Your task to perform on an android device: Search for pizza restaurants on Maps Image 0: 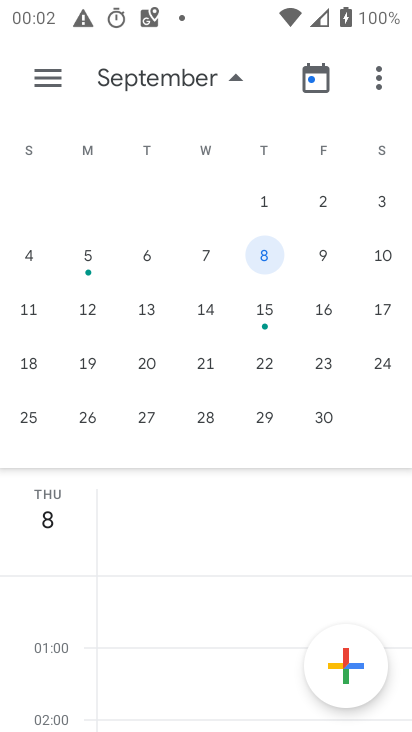
Step 0: drag from (180, 680) to (181, 109)
Your task to perform on an android device: Search for pizza restaurants on Maps Image 1: 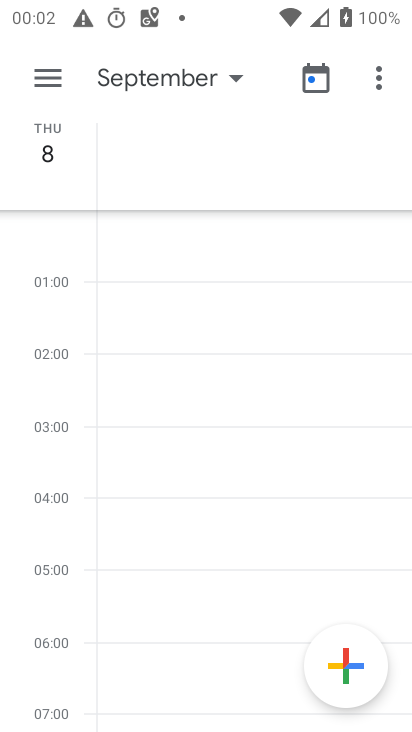
Step 1: drag from (269, 591) to (250, 302)
Your task to perform on an android device: Search for pizza restaurants on Maps Image 2: 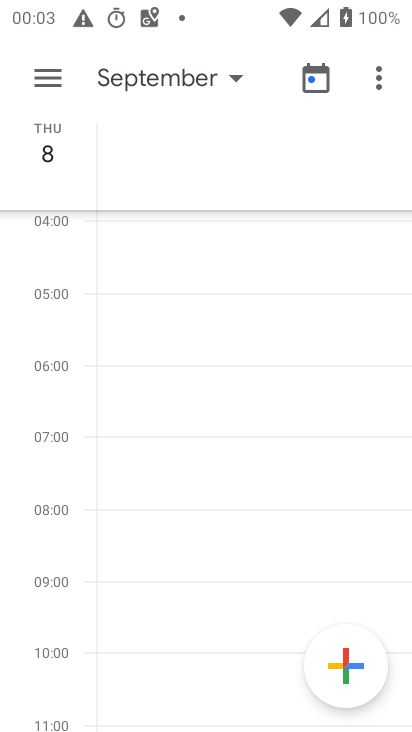
Step 2: press back button
Your task to perform on an android device: Search for pizza restaurants on Maps Image 3: 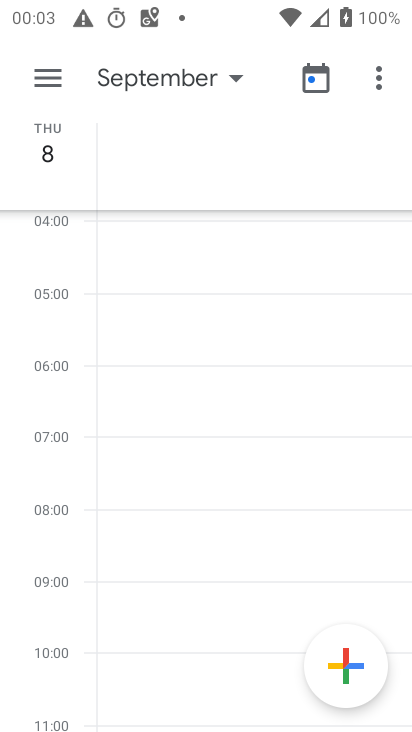
Step 3: press back button
Your task to perform on an android device: Search for pizza restaurants on Maps Image 4: 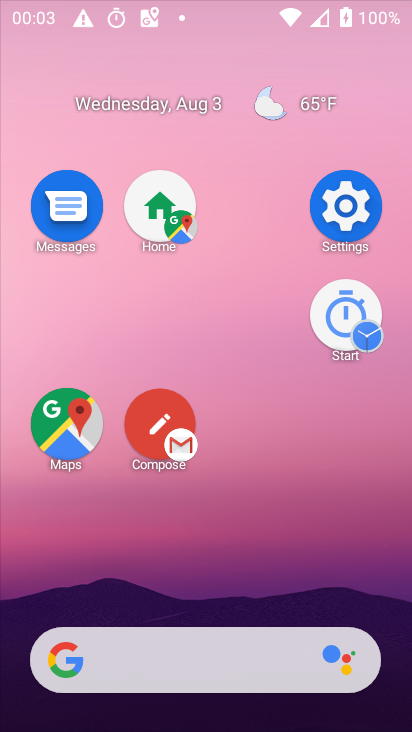
Step 4: press back button
Your task to perform on an android device: Search for pizza restaurants on Maps Image 5: 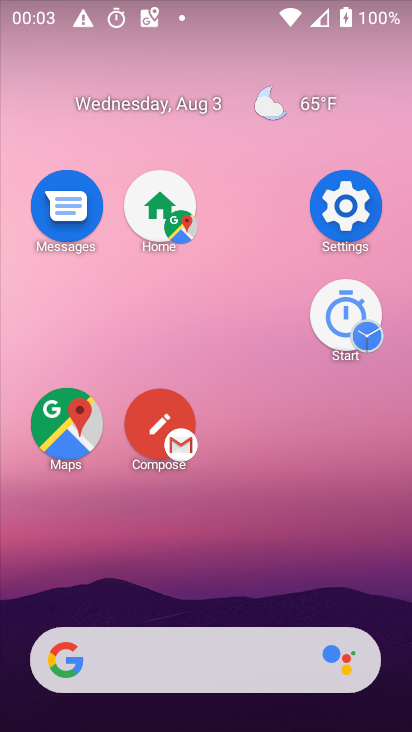
Step 5: drag from (269, 693) to (289, 139)
Your task to perform on an android device: Search for pizza restaurants on Maps Image 6: 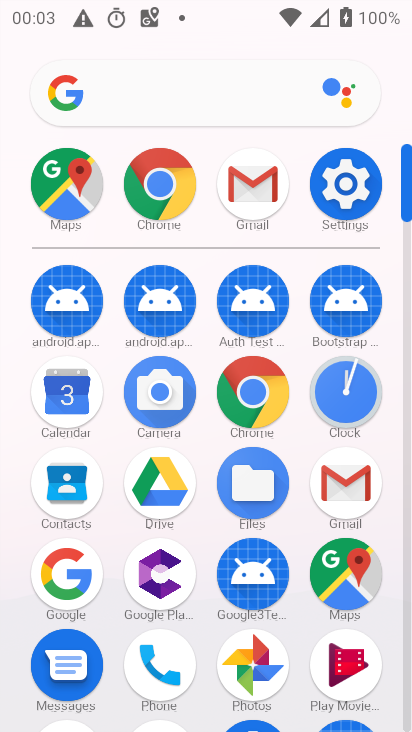
Step 6: click (233, 202)
Your task to perform on an android device: Search for pizza restaurants on Maps Image 7: 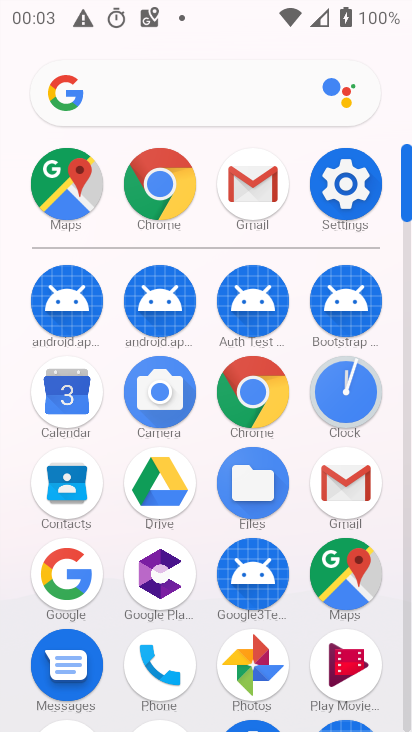
Step 7: drag from (179, 114) to (71, 446)
Your task to perform on an android device: Search for pizza restaurants on Maps Image 8: 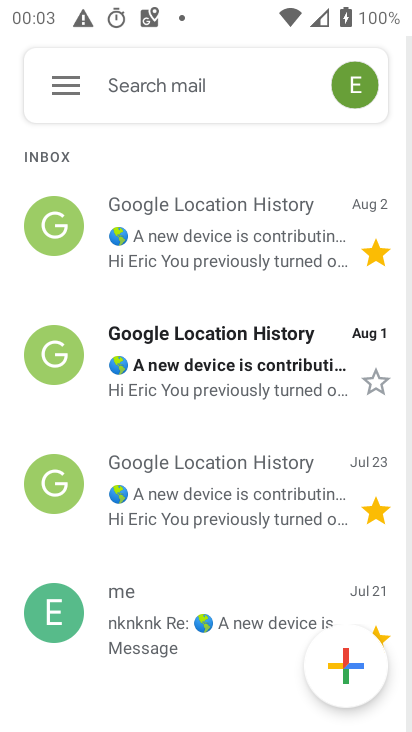
Step 8: press back button
Your task to perform on an android device: Search for pizza restaurants on Maps Image 9: 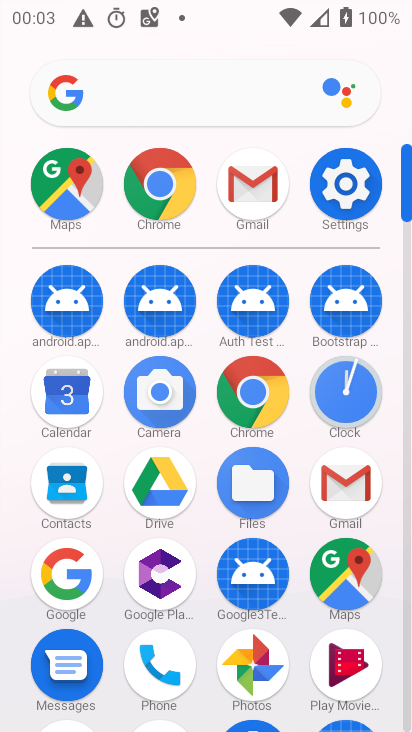
Step 9: click (70, 166)
Your task to perform on an android device: Search for pizza restaurants on Maps Image 10: 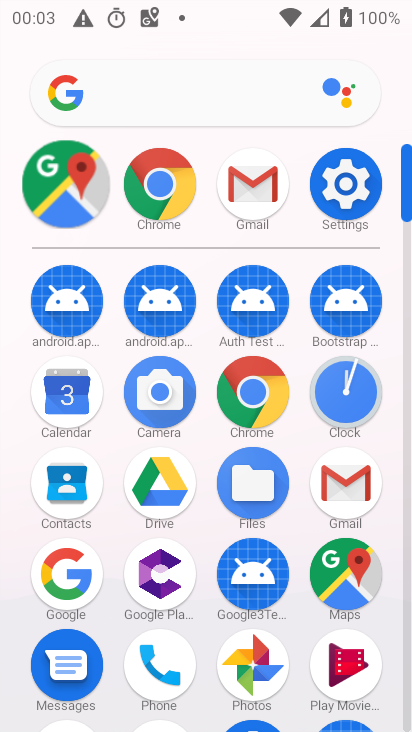
Step 10: click (70, 166)
Your task to perform on an android device: Search for pizza restaurants on Maps Image 11: 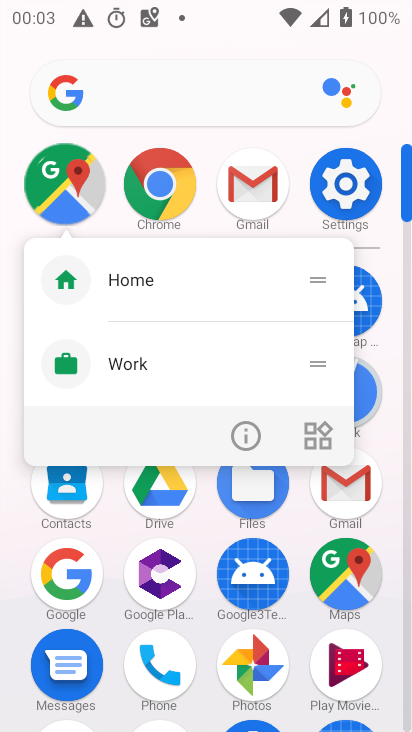
Step 11: click (70, 166)
Your task to perform on an android device: Search for pizza restaurants on Maps Image 12: 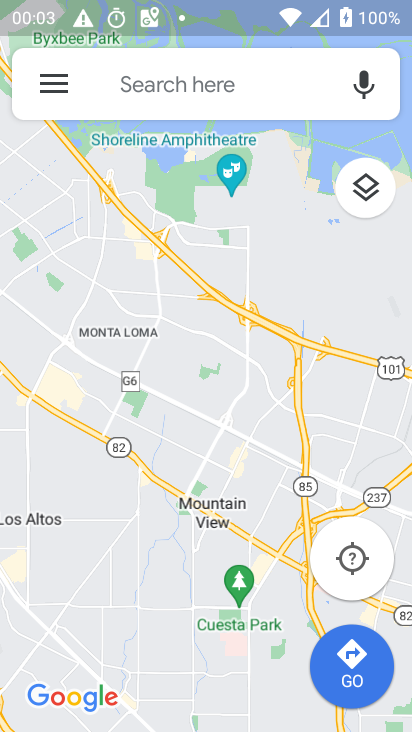
Step 12: click (146, 94)
Your task to perform on an android device: Search for pizza restaurants on Maps Image 13: 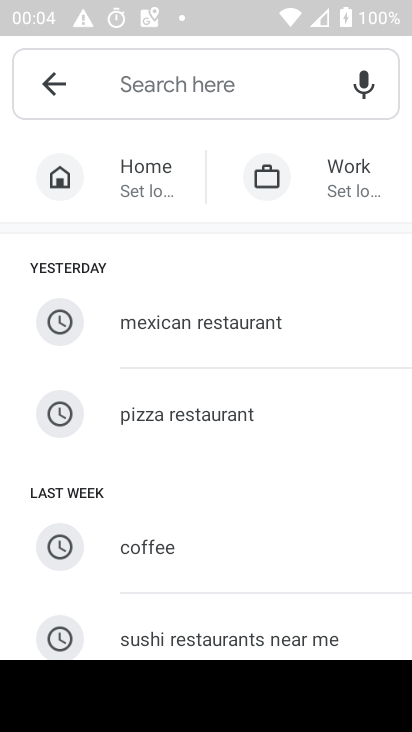
Step 13: click (45, 89)
Your task to perform on an android device: Search for pizza restaurants on Maps Image 14: 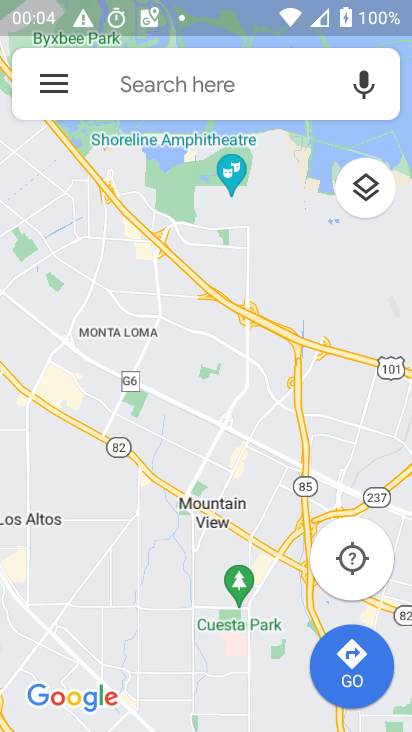
Step 14: task complete